Your task to perform on an android device: set the stopwatch Image 0: 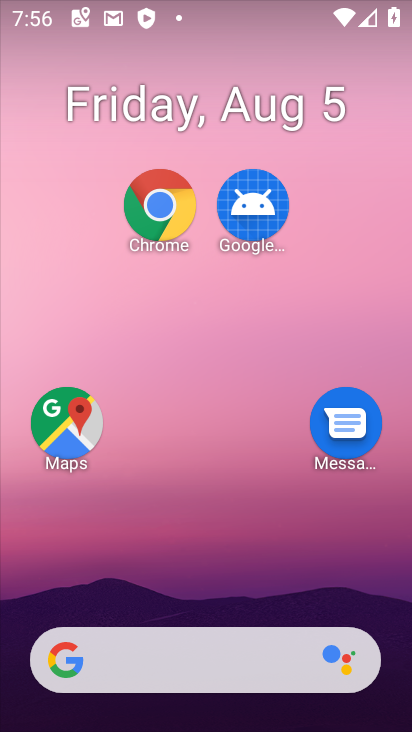
Step 0: drag from (224, 557) to (170, 129)
Your task to perform on an android device: set the stopwatch Image 1: 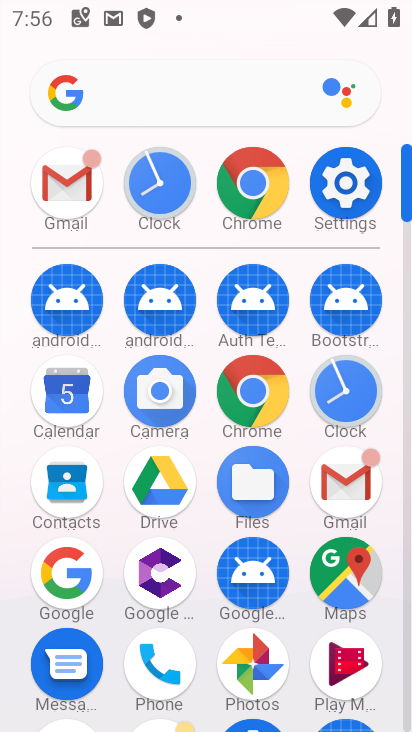
Step 1: click (345, 398)
Your task to perform on an android device: set the stopwatch Image 2: 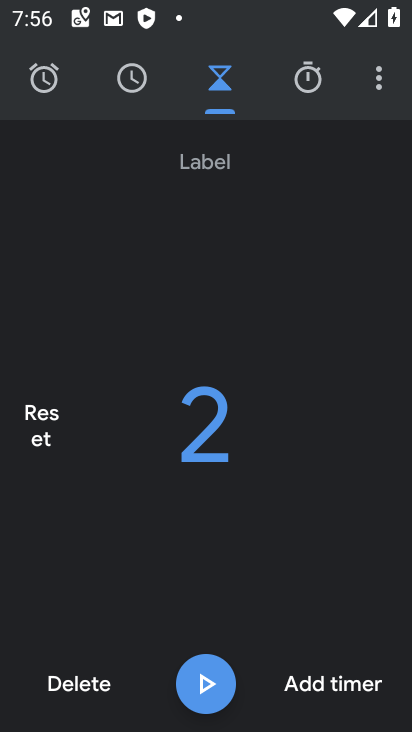
Step 2: click (297, 81)
Your task to perform on an android device: set the stopwatch Image 3: 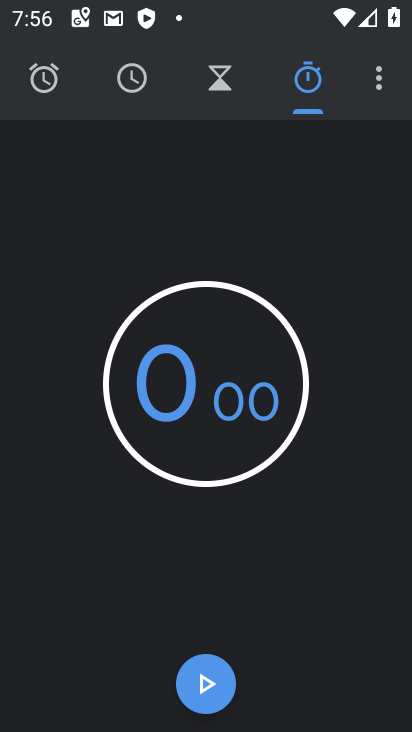
Step 3: click (187, 684)
Your task to perform on an android device: set the stopwatch Image 4: 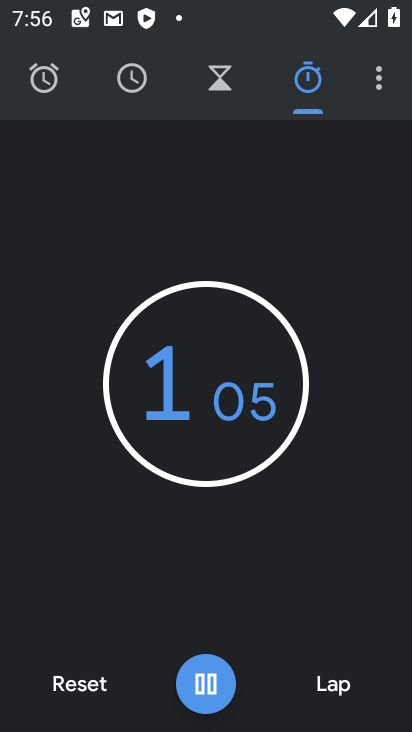
Step 4: click (187, 684)
Your task to perform on an android device: set the stopwatch Image 5: 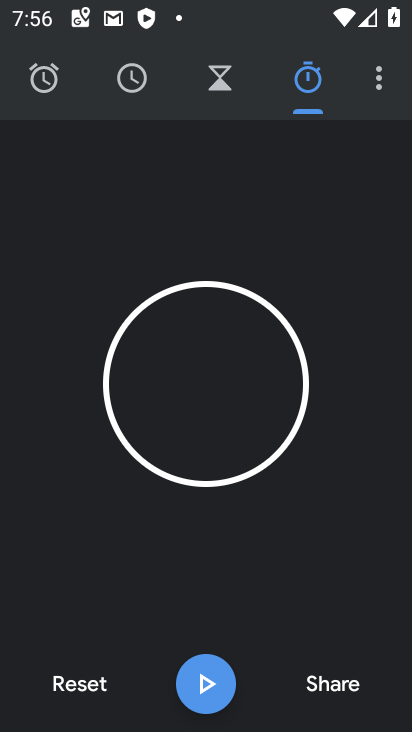
Step 5: task complete